Your task to perform on an android device: Set the phone to "Do not disturb". Image 0: 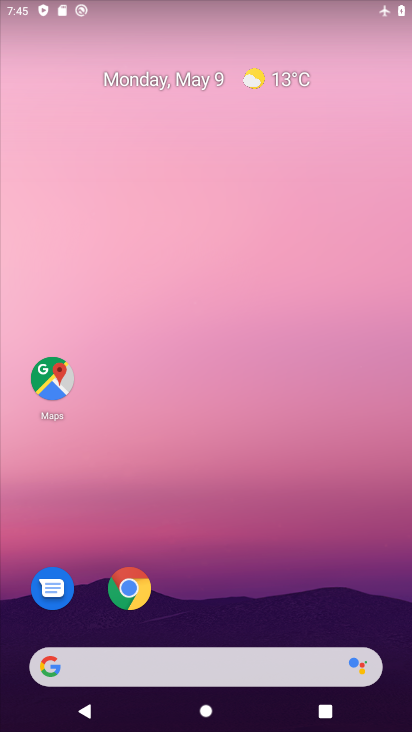
Step 0: drag from (296, 581) to (284, 94)
Your task to perform on an android device: Set the phone to "Do not disturb". Image 1: 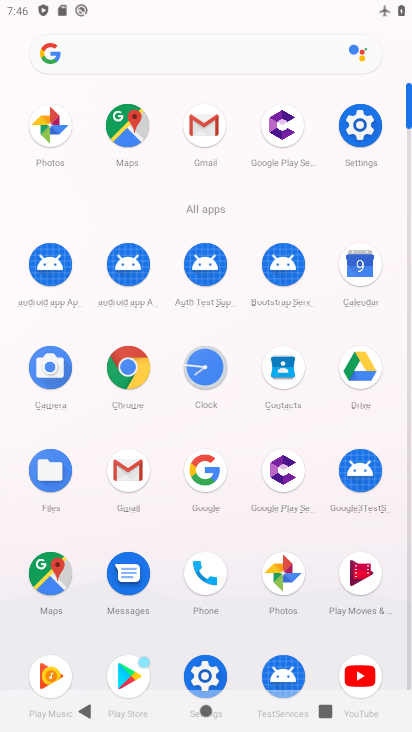
Step 1: click (365, 153)
Your task to perform on an android device: Set the phone to "Do not disturb". Image 2: 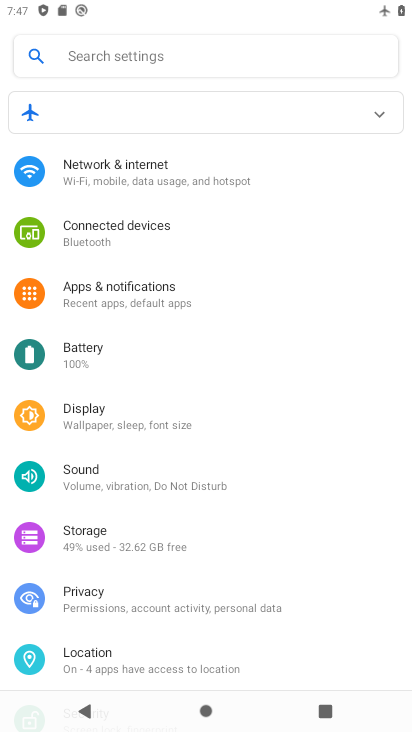
Step 2: click (242, 306)
Your task to perform on an android device: Set the phone to "Do not disturb". Image 3: 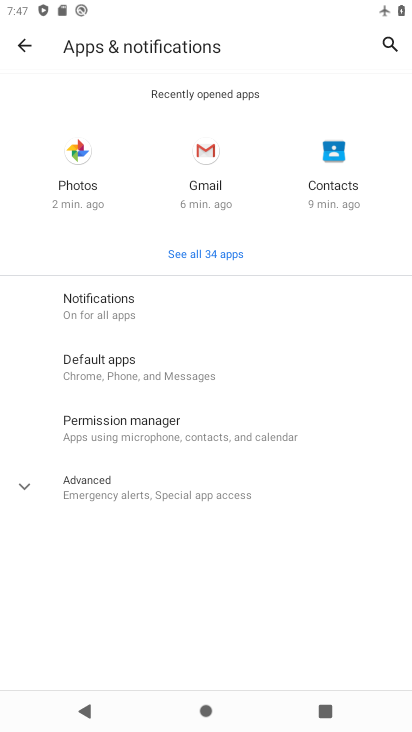
Step 3: click (14, 44)
Your task to perform on an android device: Set the phone to "Do not disturb". Image 4: 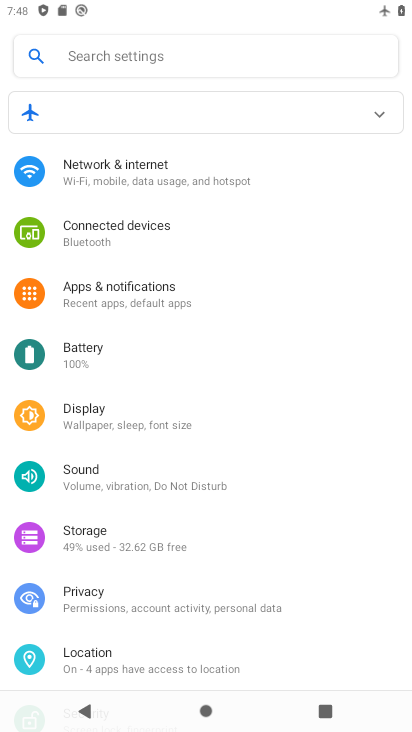
Step 4: click (234, 473)
Your task to perform on an android device: Set the phone to "Do not disturb". Image 5: 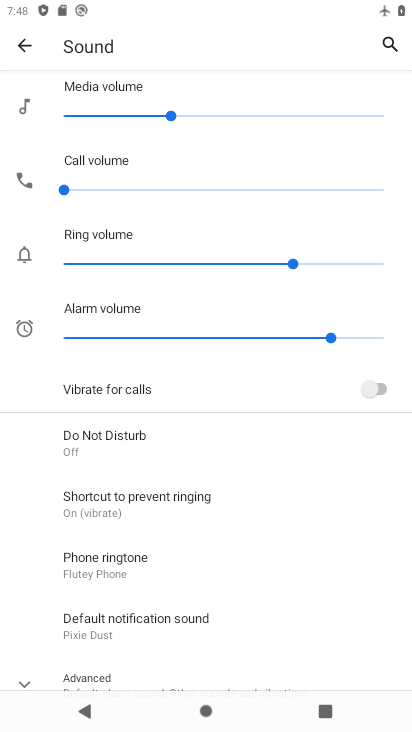
Step 5: click (189, 460)
Your task to perform on an android device: Set the phone to "Do not disturb". Image 6: 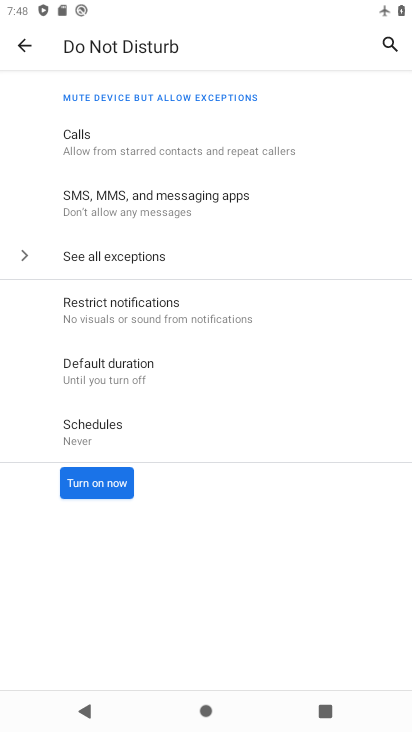
Step 6: click (107, 484)
Your task to perform on an android device: Set the phone to "Do not disturb". Image 7: 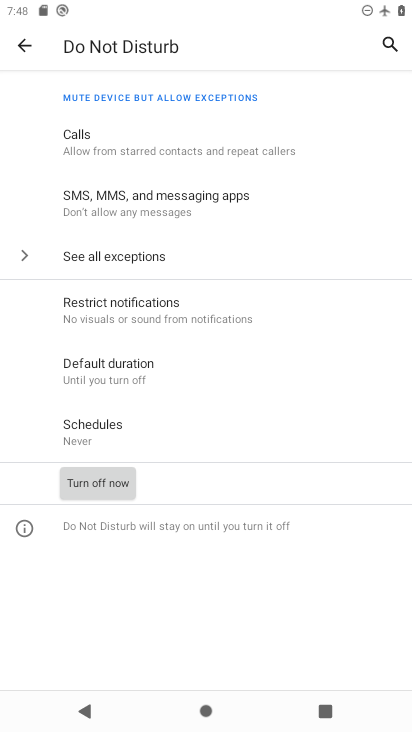
Step 7: task complete